Your task to perform on an android device: turn notification dots off Image 0: 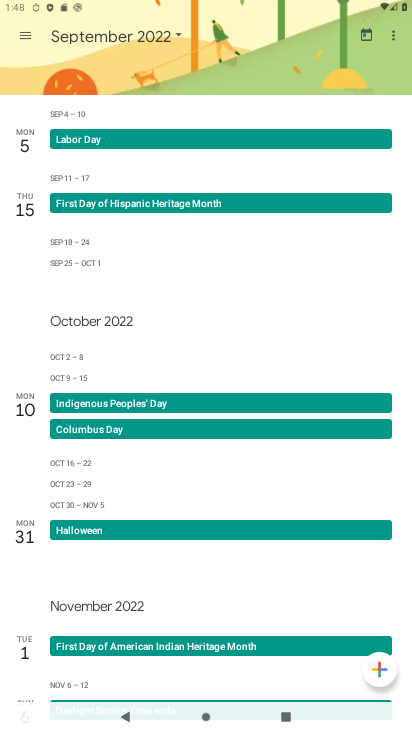
Step 0: press home button
Your task to perform on an android device: turn notification dots off Image 1: 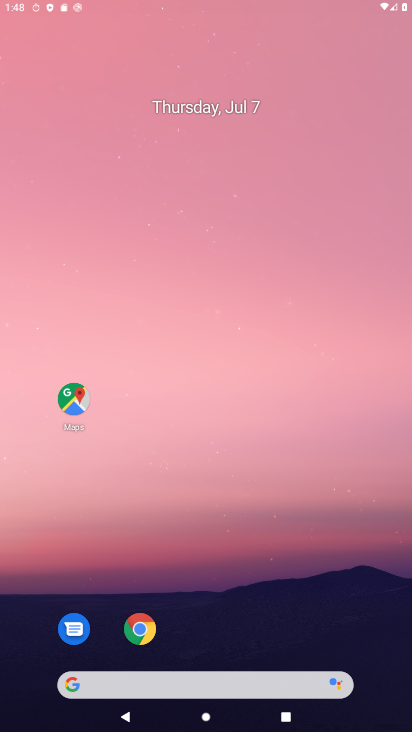
Step 1: drag from (282, 661) to (268, 39)
Your task to perform on an android device: turn notification dots off Image 2: 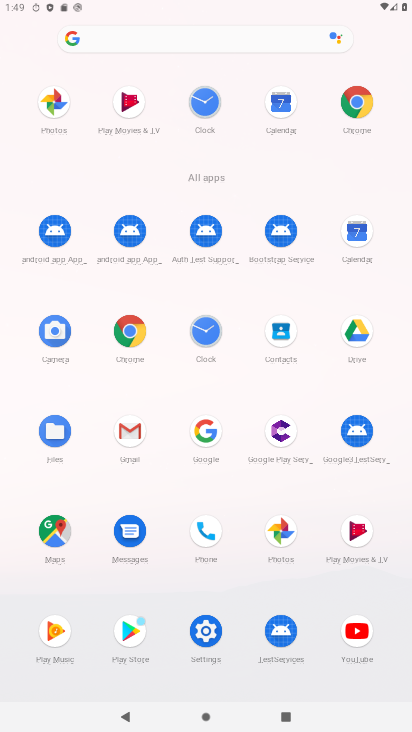
Step 2: click (198, 632)
Your task to perform on an android device: turn notification dots off Image 3: 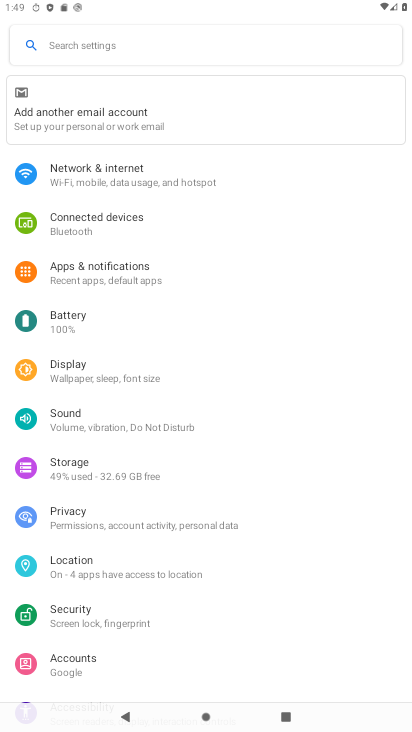
Step 3: click (102, 277)
Your task to perform on an android device: turn notification dots off Image 4: 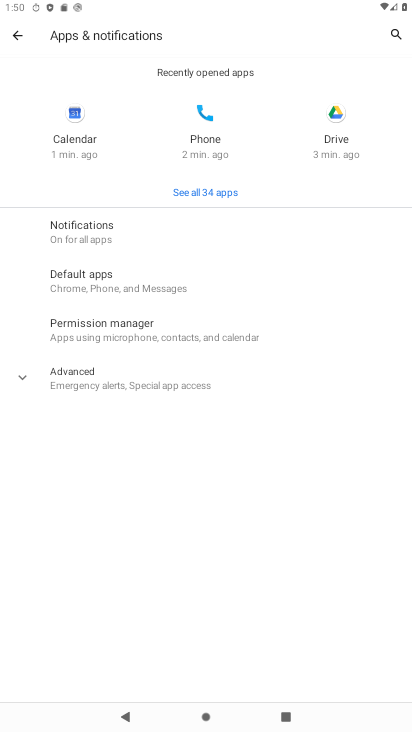
Step 4: click (116, 220)
Your task to perform on an android device: turn notification dots off Image 5: 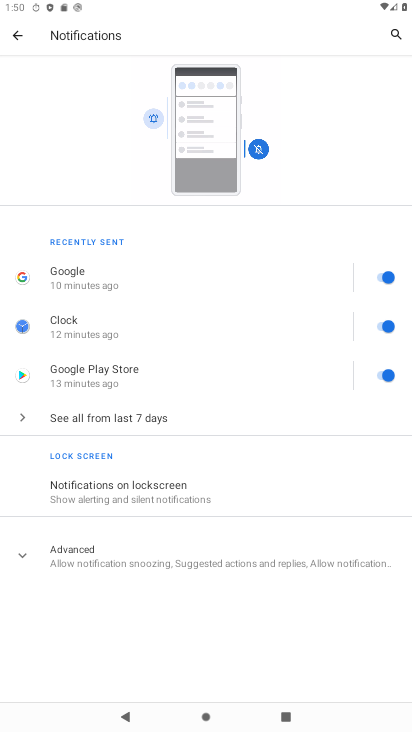
Step 5: click (76, 556)
Your task to perform on an android device: turn notification dots off Image 6: 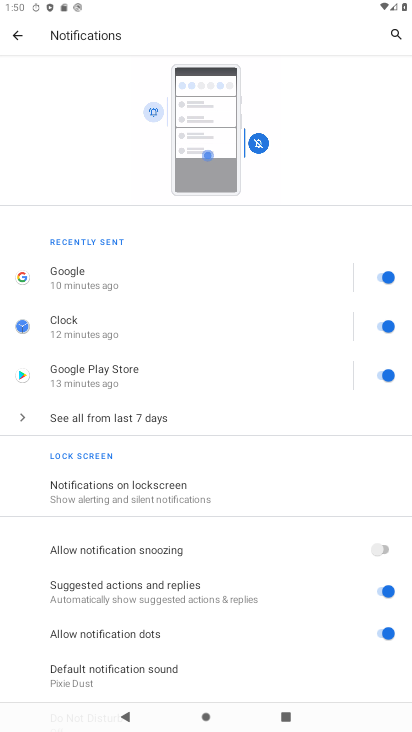
Step 6: drag from (184, 670) to (186, 409)
Your task to perform on an android device: turn notification dots off Image 7: 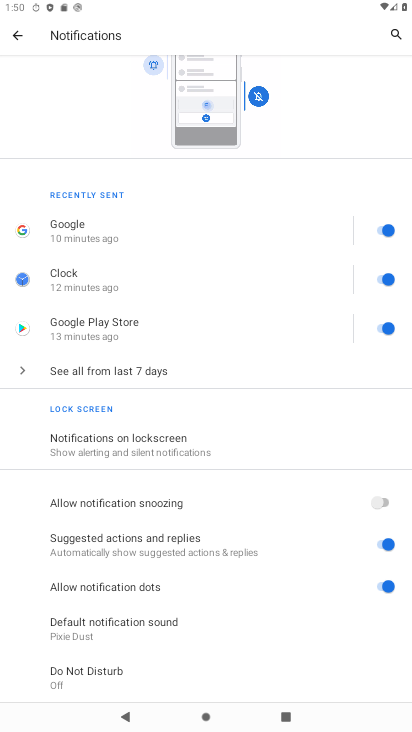
Step 7: click (112, 589)
Your task to perform on an android device: turn notification dots off Image 8: 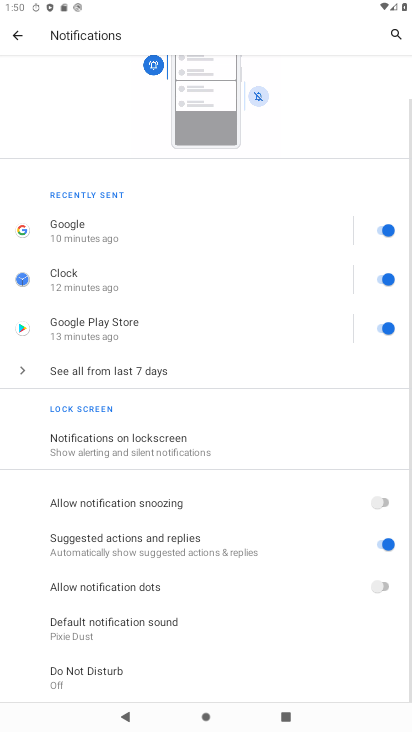
Step 8: task complete